Your task to perform on an android device: What's the weather going to be this weekend? Image 0: 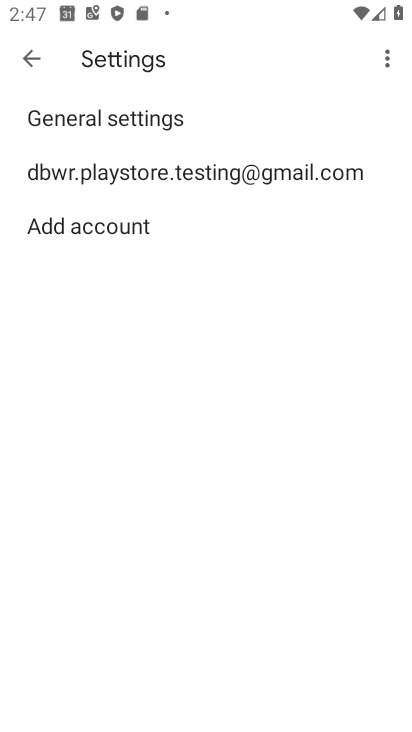
Step 0: press back button
Your task to perform on an android device: What's the weather going to be this weekend? Image 1: 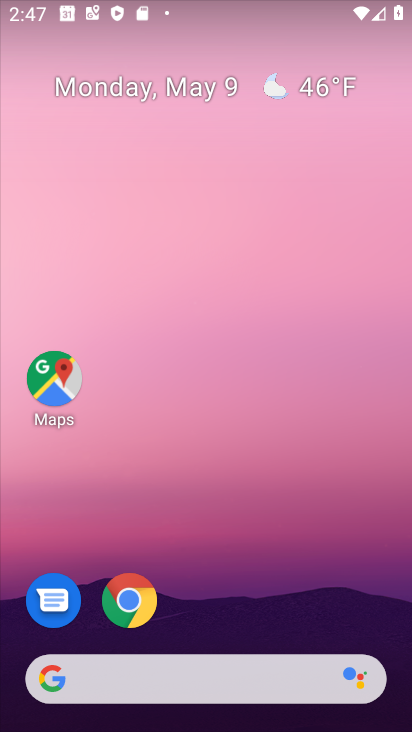
Step 1: click (285, 93)
Your task to perform on an android device: What's the weather going to be this weekend? Image 2: 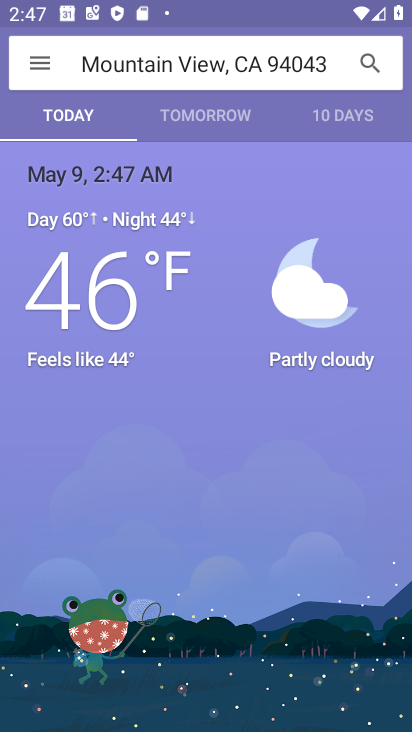
Step 2: click (344, 119)
Your task to perform on an android device: What's the weather going to be this weekend? Image 3: 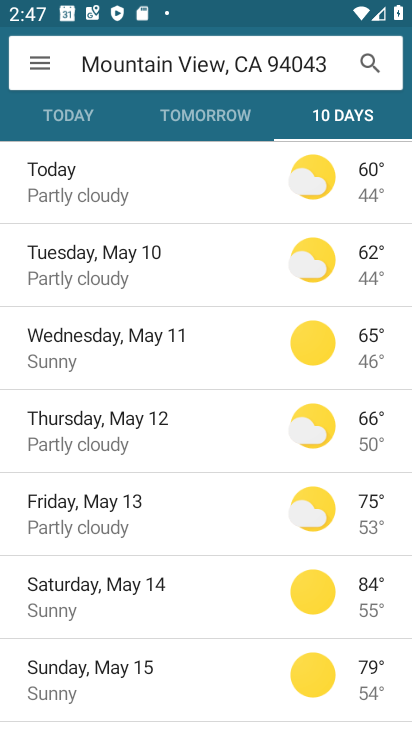
Step 3: task complete